Your task to perform on an android device: turn off data saver in the chrome app Image 0: 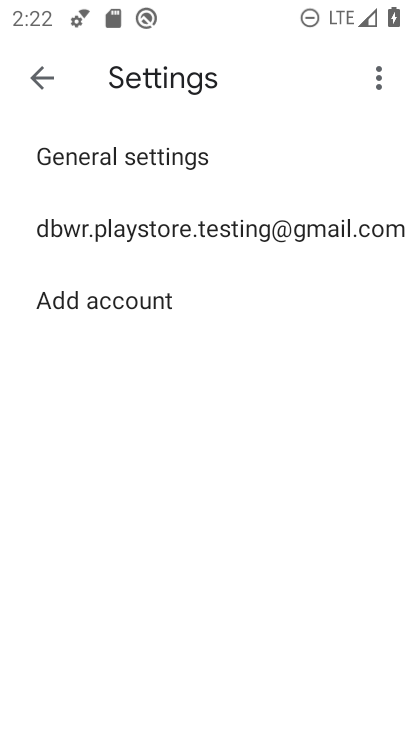
Step 0: press home button
Your task to perform on an android device: turn off data saver in the chrome app Image 1: 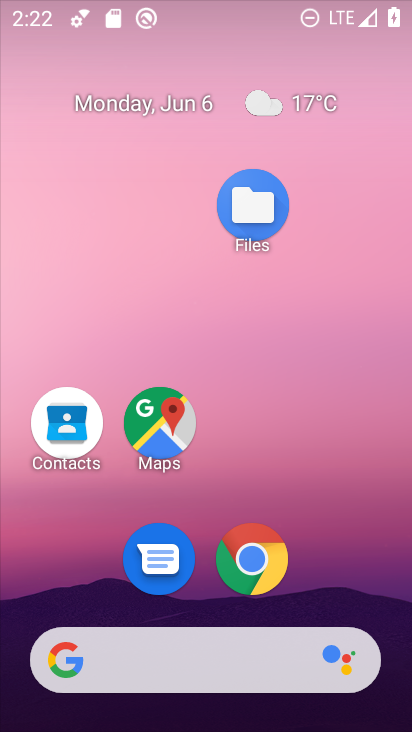
Step 1: drag from (242, 697) to (213, 225)
Your task to perform on an android device: turn off data saver in the chrome app Image 2: 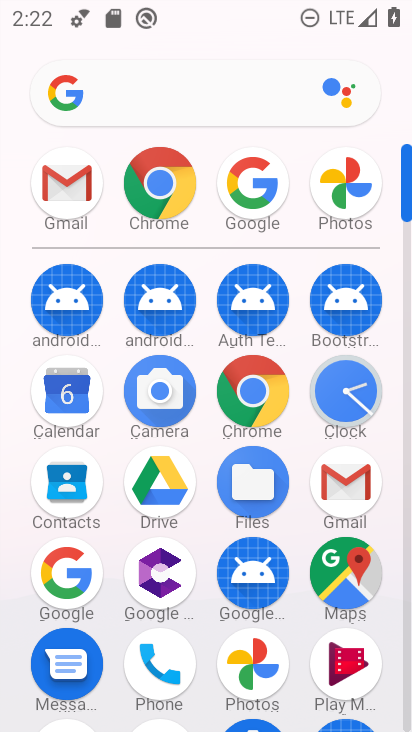
Step 2: click (161, 220)
Your task to perform on an android device: turn off data saver in the chrome app Image 3: 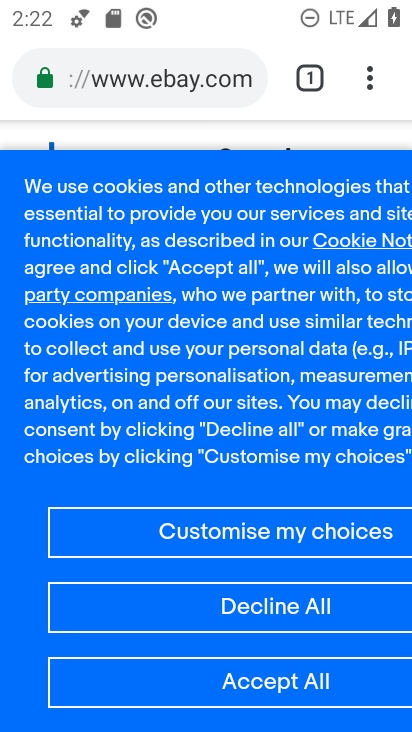
Step 3: click (378, 77)
Your task to perform on an android device: turn off data saver in the chrome app Image 4: 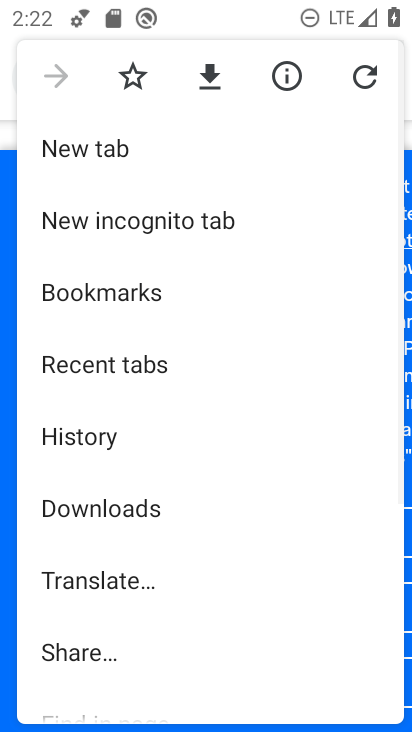
Step 4: drag from (213, 496) to (249, 285)
Your task to perform on an android device: turn off data saver in the chrome app Image 5: 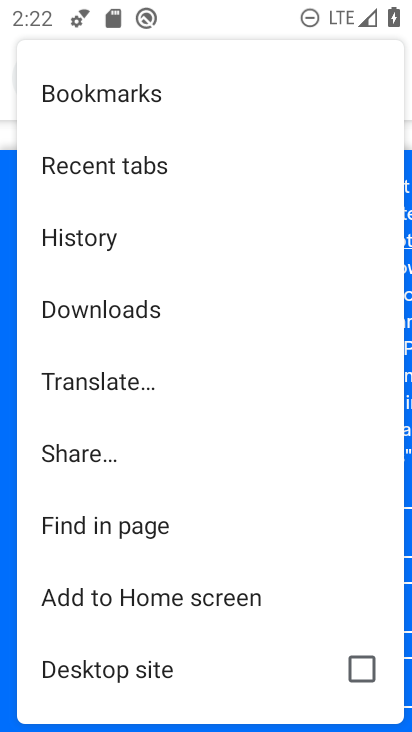
Step 5: drag from (96, 675) to (176, 373)
Your task to perform on an android device: turn off data saver in the chrome app Image 6: 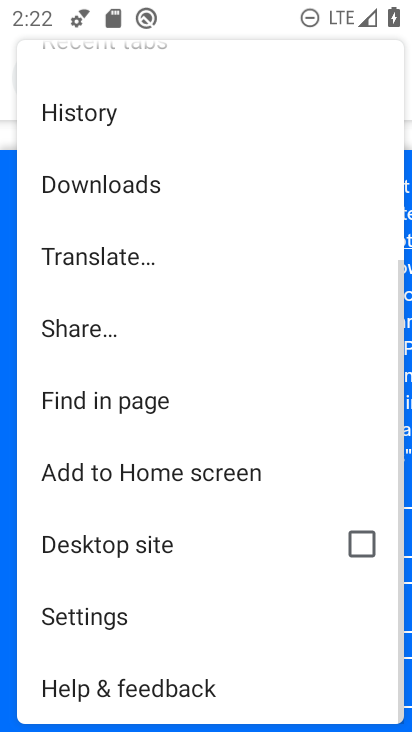
Step 6: click (98, 632)
Your task to perform on an android device: turn off data saver in the chrome app Image 7: 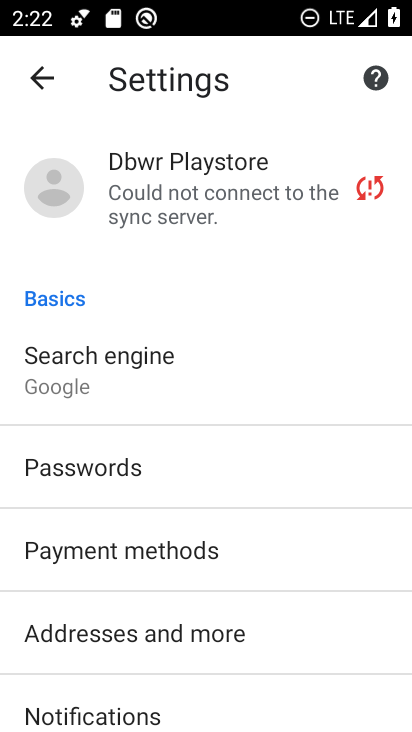
Step 7: drag from (147, 639) to (214, 334)
Your task to perform on an android device: turn off data saver in the chrome app Image 8: 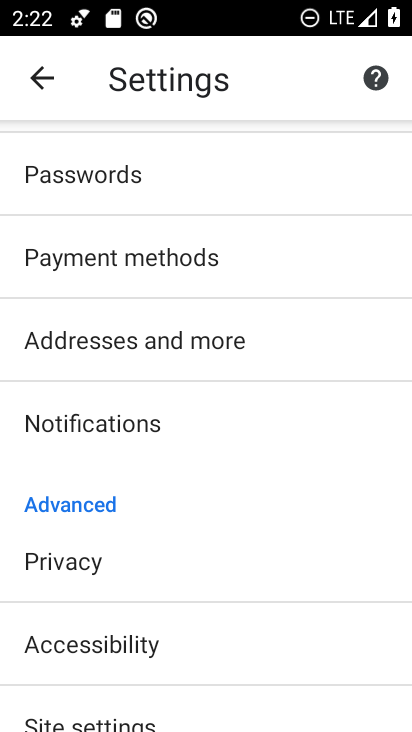
Step 8: drag from (141, 621) to (191, 304)
Your task to perform on an android device: turn off data saver in the chrome app Image 9: 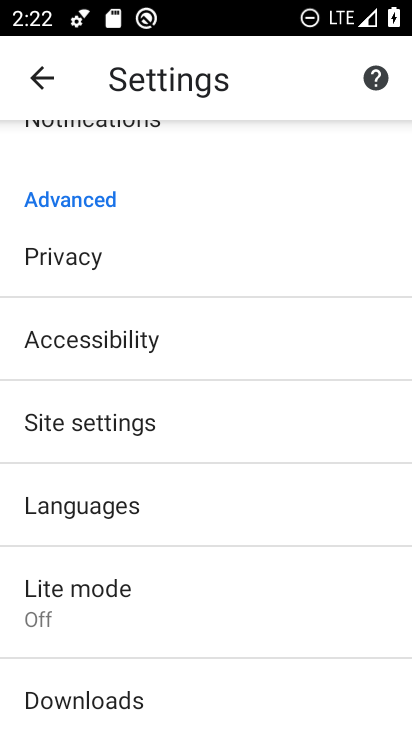
Step 9: click (143, 601)
Your task to perform on an android device: turn off data saver in the chrome app Image 10: 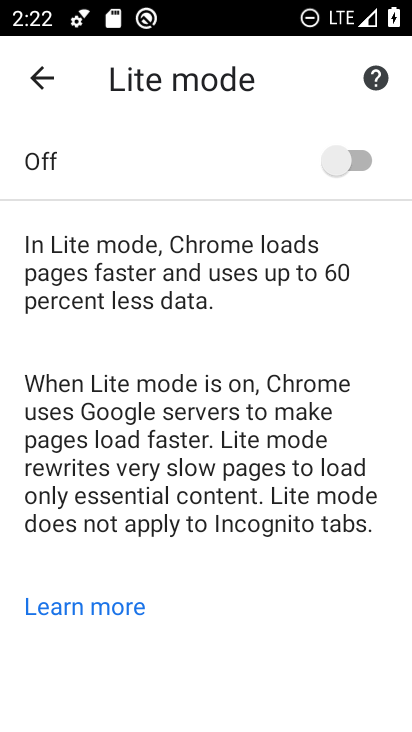
Step 10: task complete